Your task to perform on an android device: Open the map Image 0: 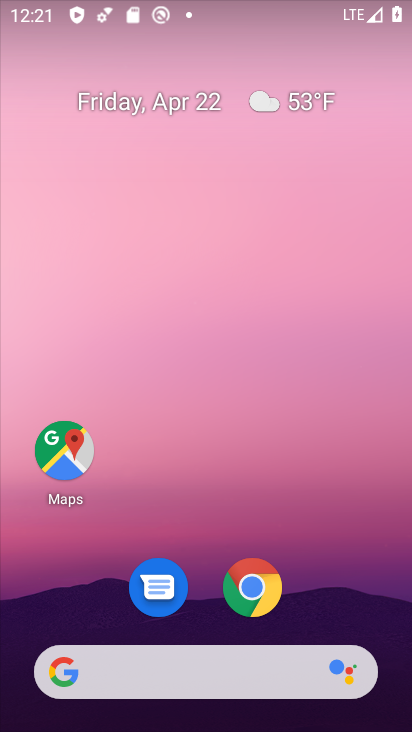
Step 0: click (73, 440)
Your task to perform on an android device: Open the map Image 1: 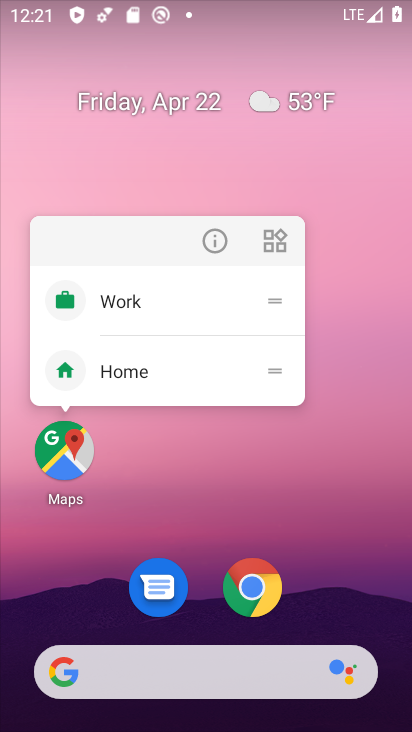
Step 1: click (61, 453)
Your task to perform on an android device: Open the map Image 2: 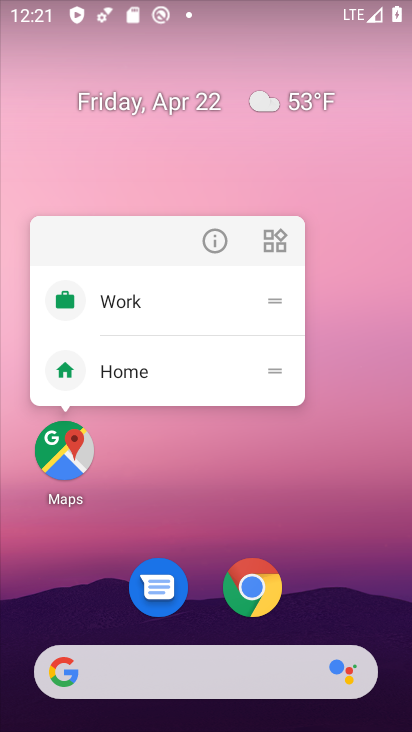
Step 2: click (209, 244)
Your task to perform on an android device: Open the map Image 3: 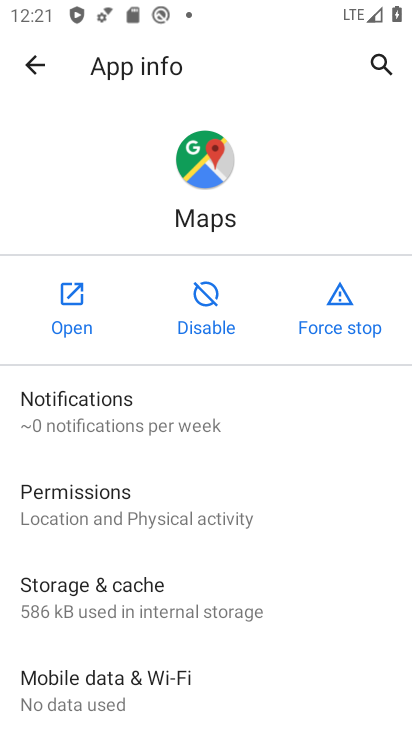
Step 3: click (63, 316)
Your task to perform on an android device: Open the map Image 4: 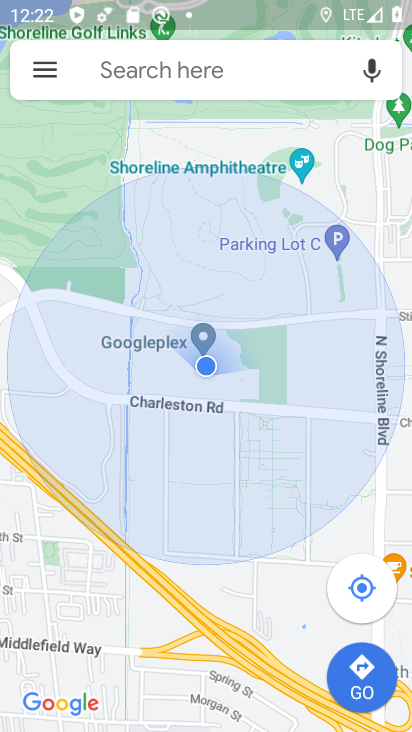
Step 4: task complete